Your task to perform on an android device: turn on location history Image 0: 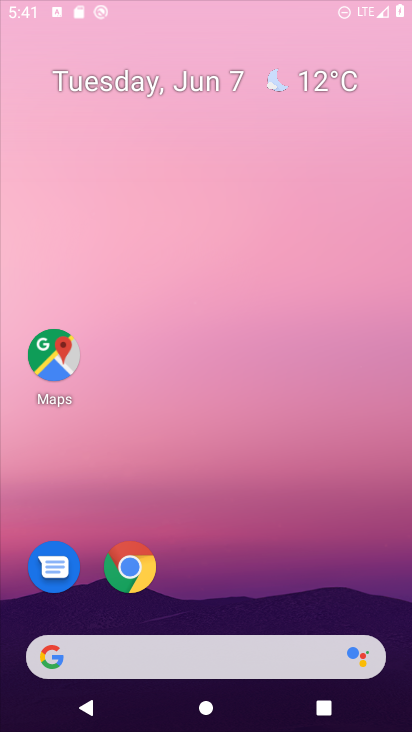
Step 0: drag from (247, 644) to (317, 8)
Your task to perform on an android device: turn on location history Image 1: 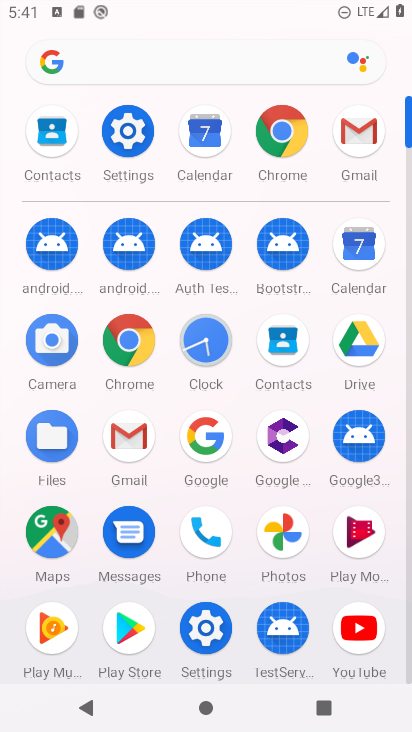
Step 1: click (141, 142)
Your task to perform on an android device: turn on location history Image 2: 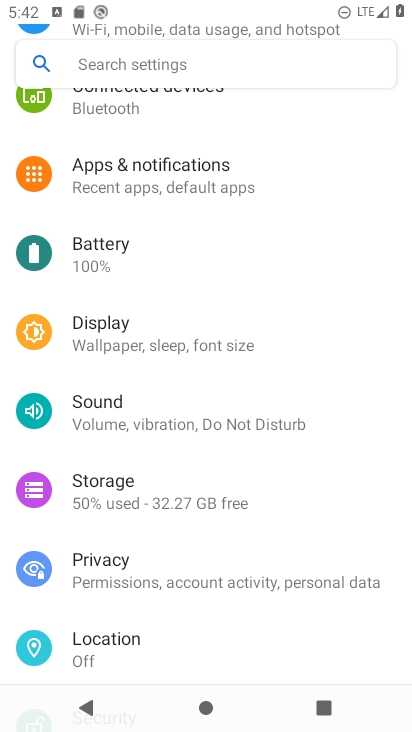
Step 2: click (135, 636)
Your task to perform on an android device: turn on location history Image 3: 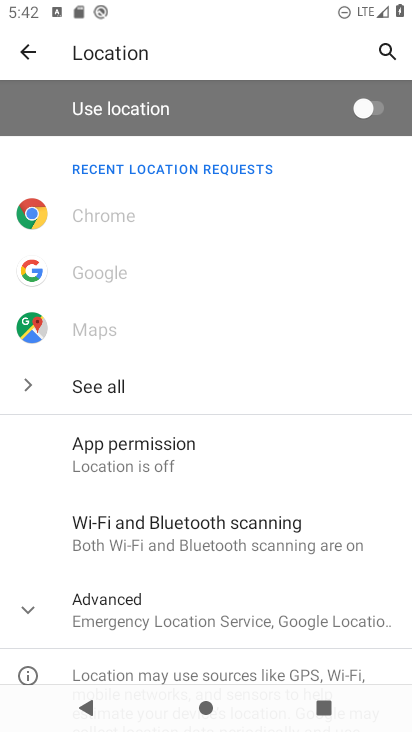
Step 3: drag from (224, 602) to (196, 317)
Your task to perform on an android device: turn on location history Image 4: 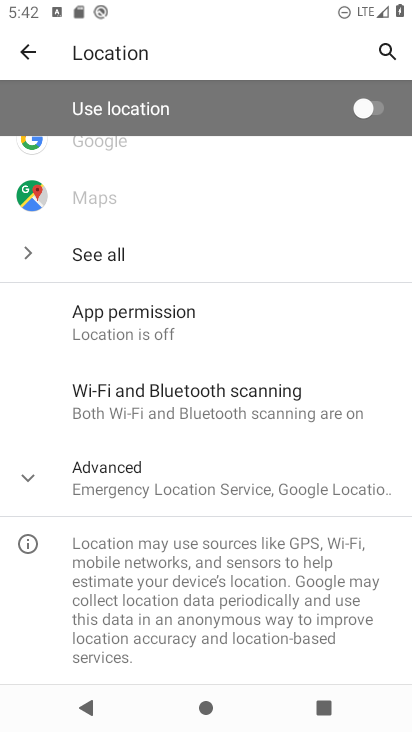
Step 4: click (157, 468)
Your task to perform on an android device: turn on location history Image 5: 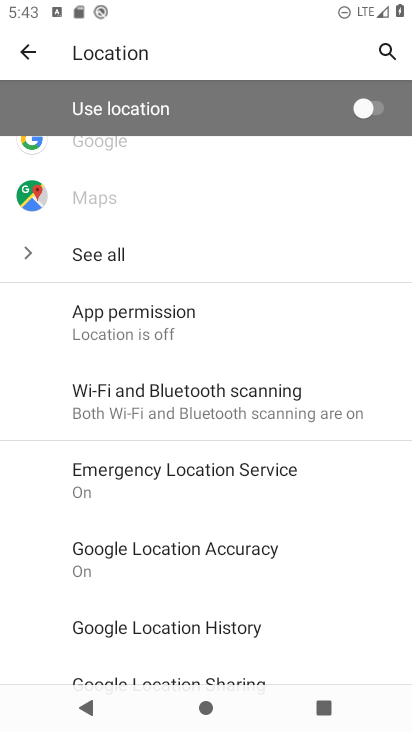
Step 5: click (158, 619)
Your task to perform on an android device: turn on location history Image 6: 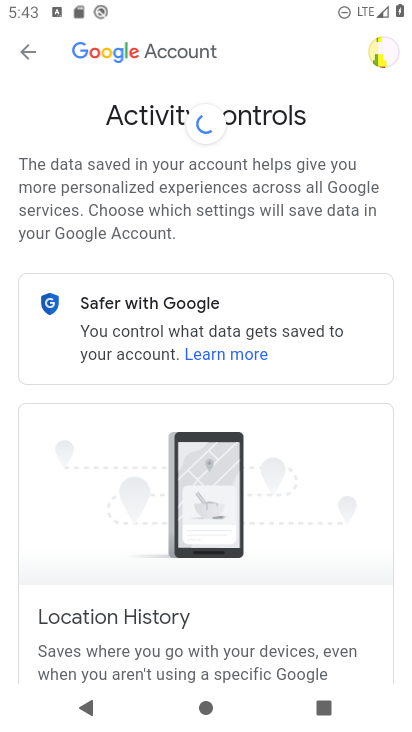
Step 6: drag from (330, 579) to (224, 115)
Your task to perform on an android device: turn on location history Image 7: 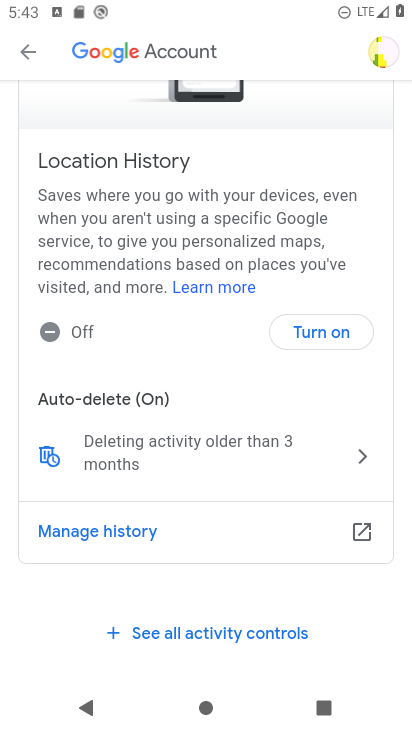
Step 7: click (312, 324)
Your task to perform on an android device: turn on location history Image 8: 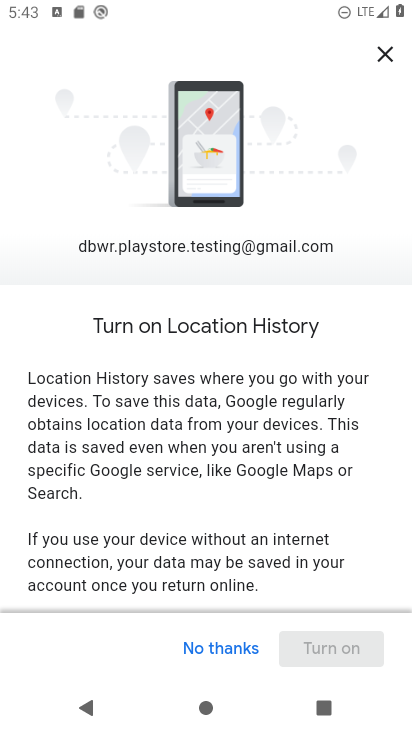
Step 8: drag from (345, 537) to (385, 38)
Your task to perform on an android device: turn on location history Image 9: 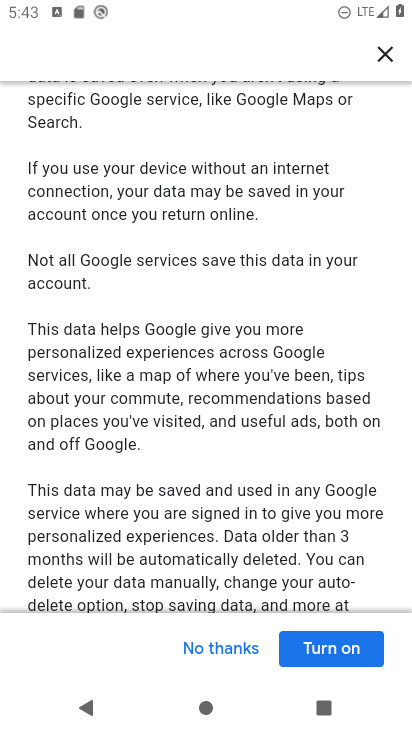
Step 9: click (351, 653)
Your task to perform on an android device: turn on location history Image 10: 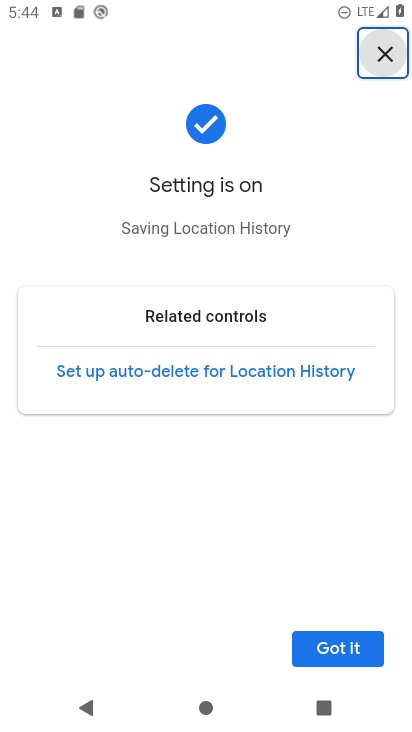
Step 10: task complete